Your task to perform on an android device: uninstall "Chime – Mobile Banking" Image 0: 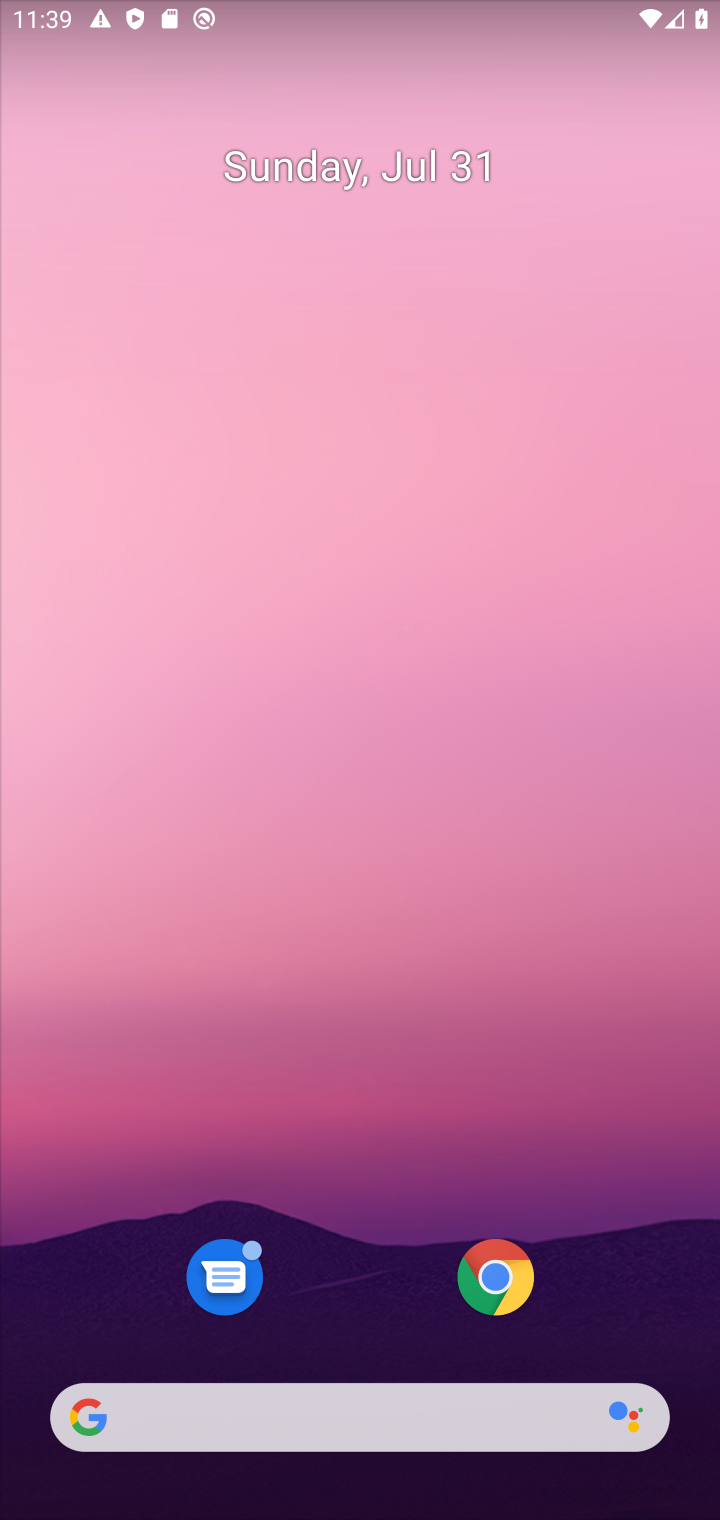
Step 0: drag from (363, 781) to (352, 307)
Your task to perform on an android device: uninstall "Chime – Mobile Banking" Image 1: 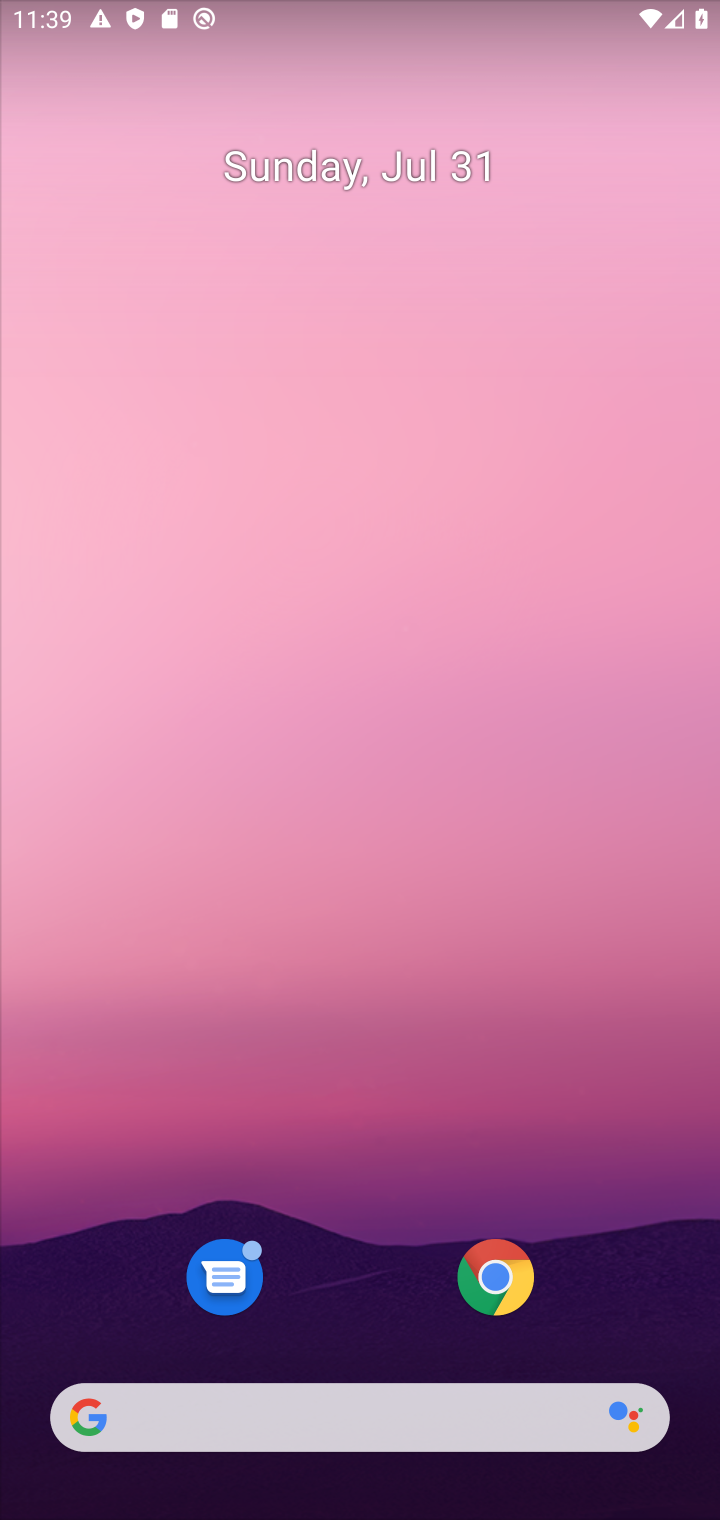
Step 1: drag from (393, 1175) to (530, 873)
Your task to perform on an android device: uninstall "Chime – Mobile Banking" Image 2: 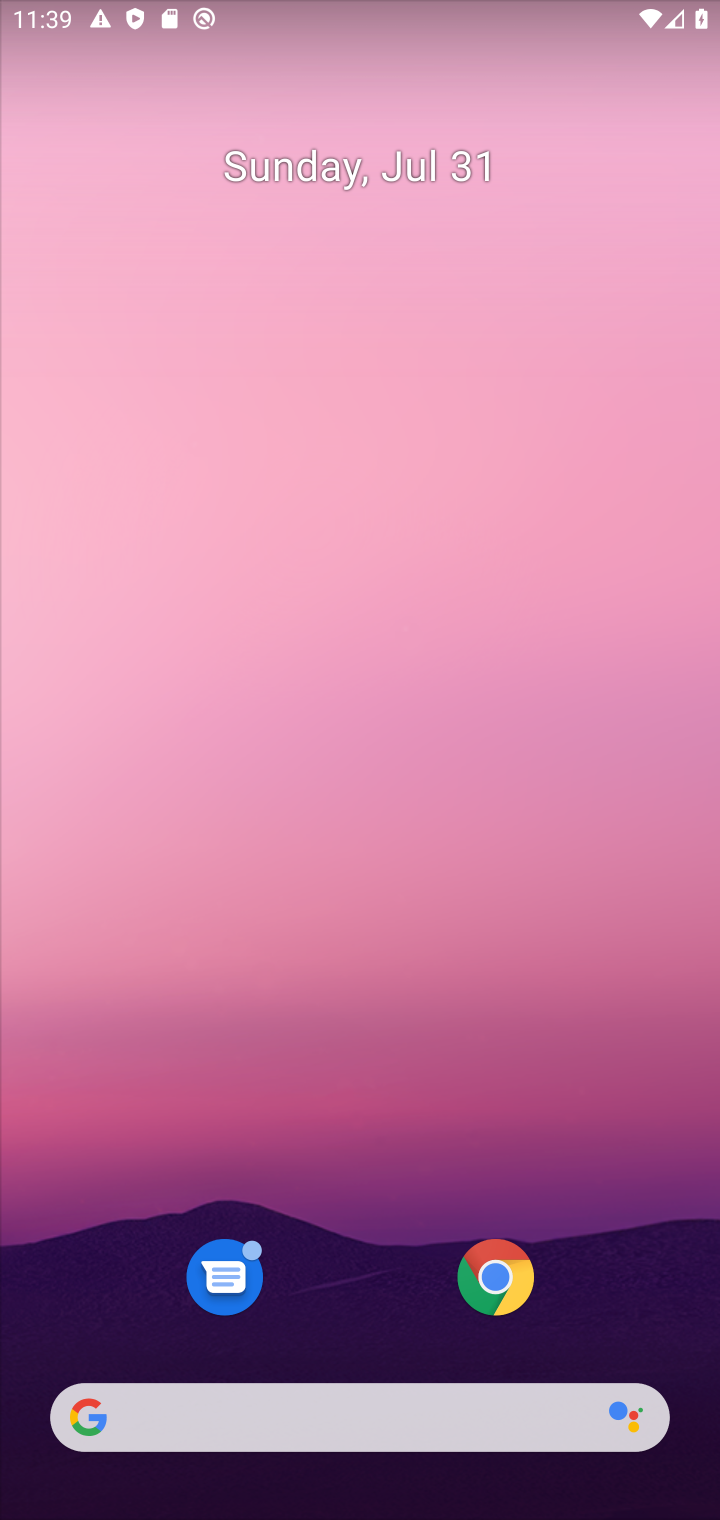
Step 2: drag from (345, 18) to (535, 76)
Your task to perform on an android device: uninstall "Chime – Mobile Banking" Image 3: 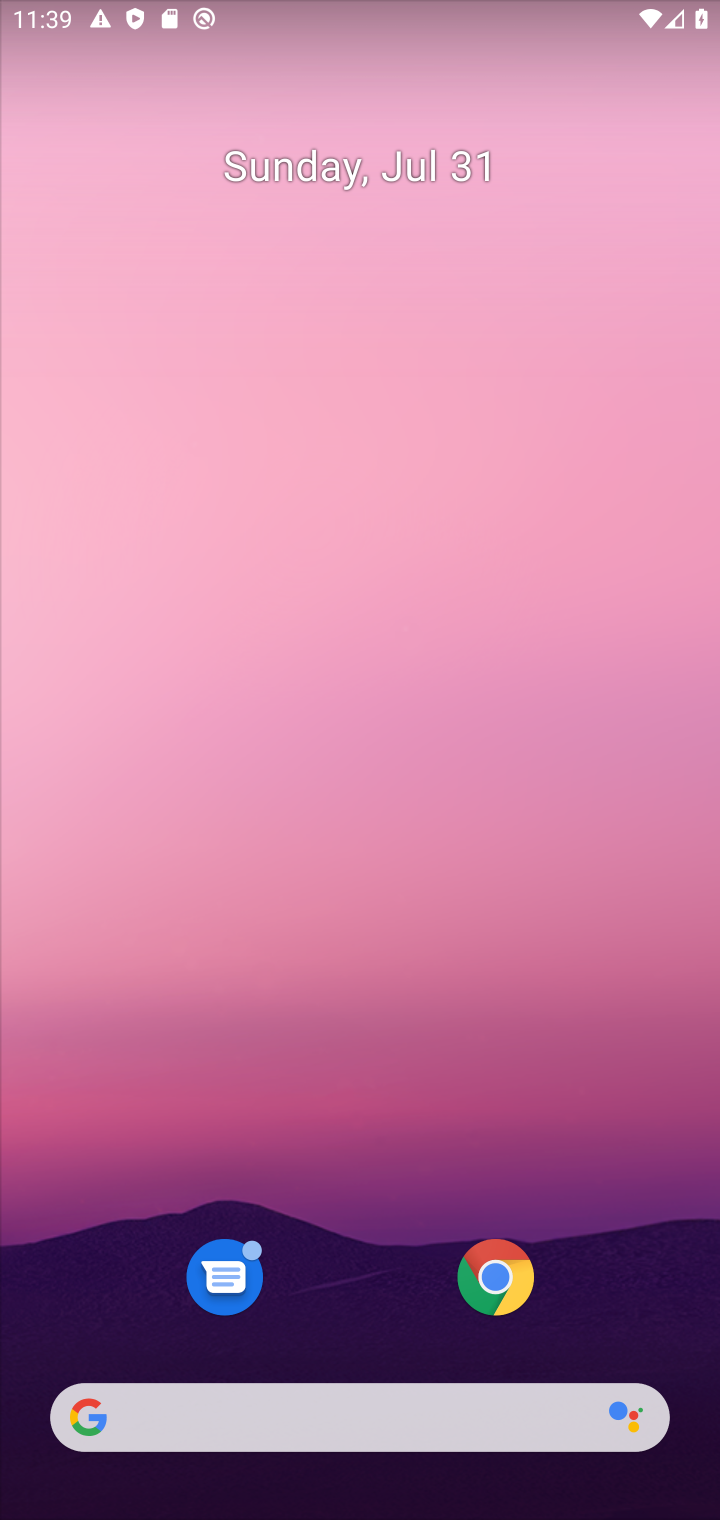
Step 3: drag from (327, 1235) to (421, 71)
Your task to perform on an android device: uninstall "Chime – Mobile Banking" Image 4: 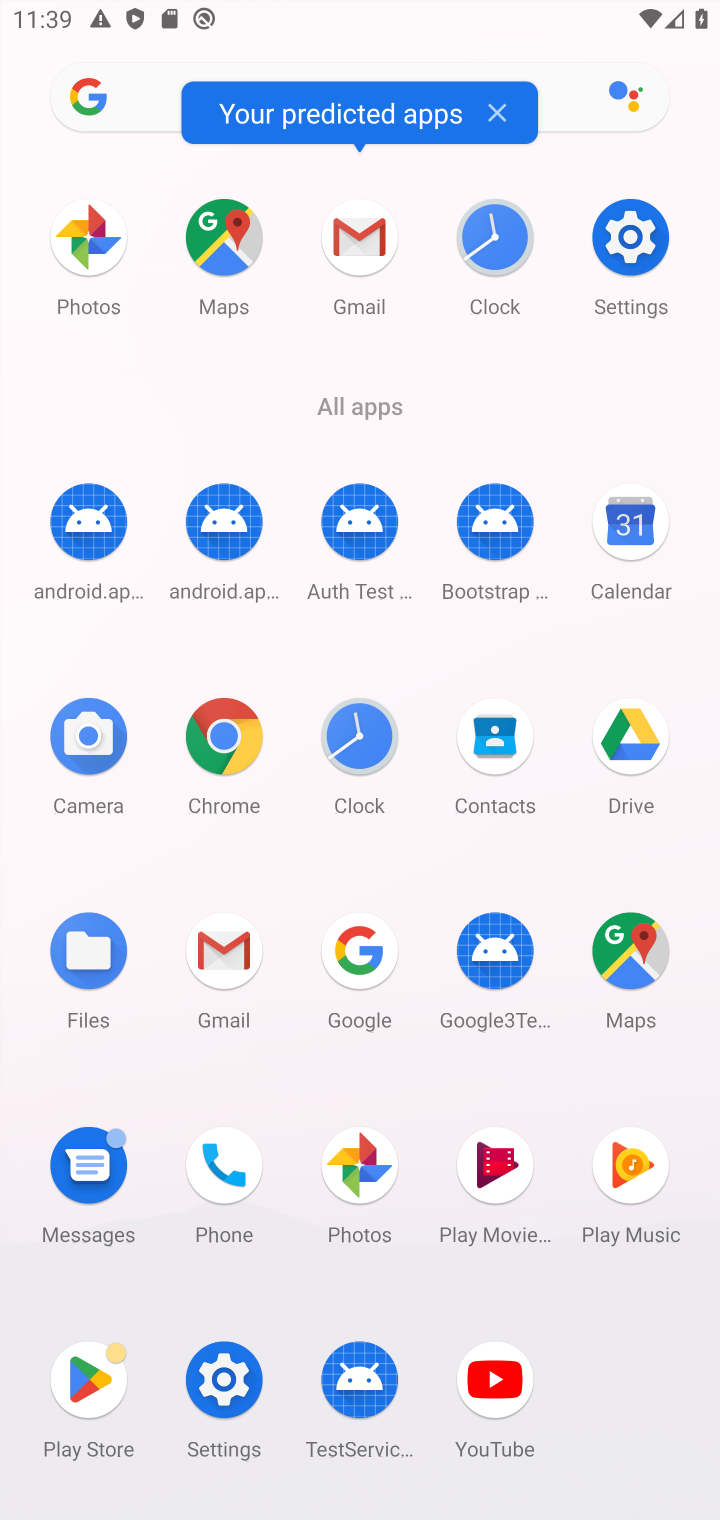
Step 4: click (77, 1387)
Your task to perform on an android device: uninstall "Chime – Mobile Banking" Image 5: 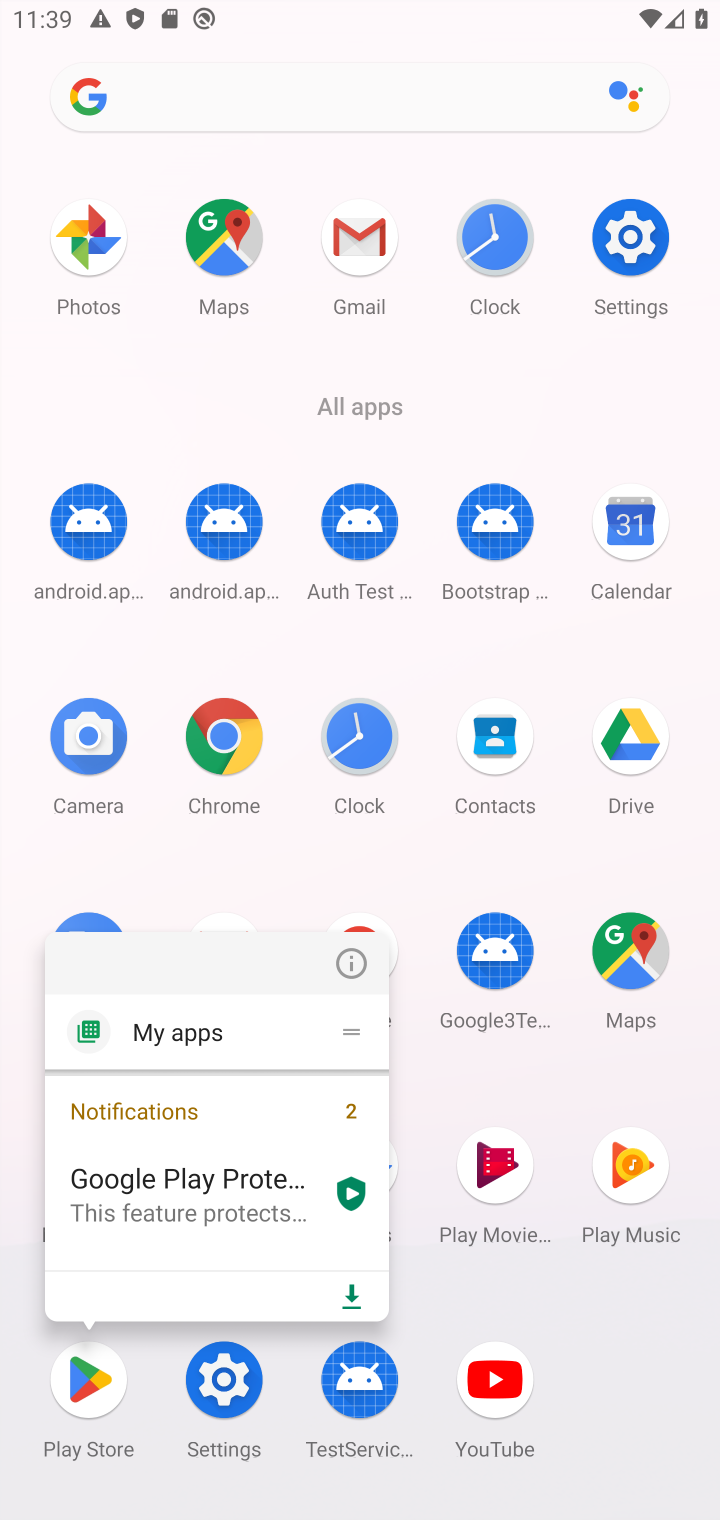
Step 5: click (77, 1387)
Your task to perform on an android device: uninstall "Chime – Mobile Banking" Image 6: 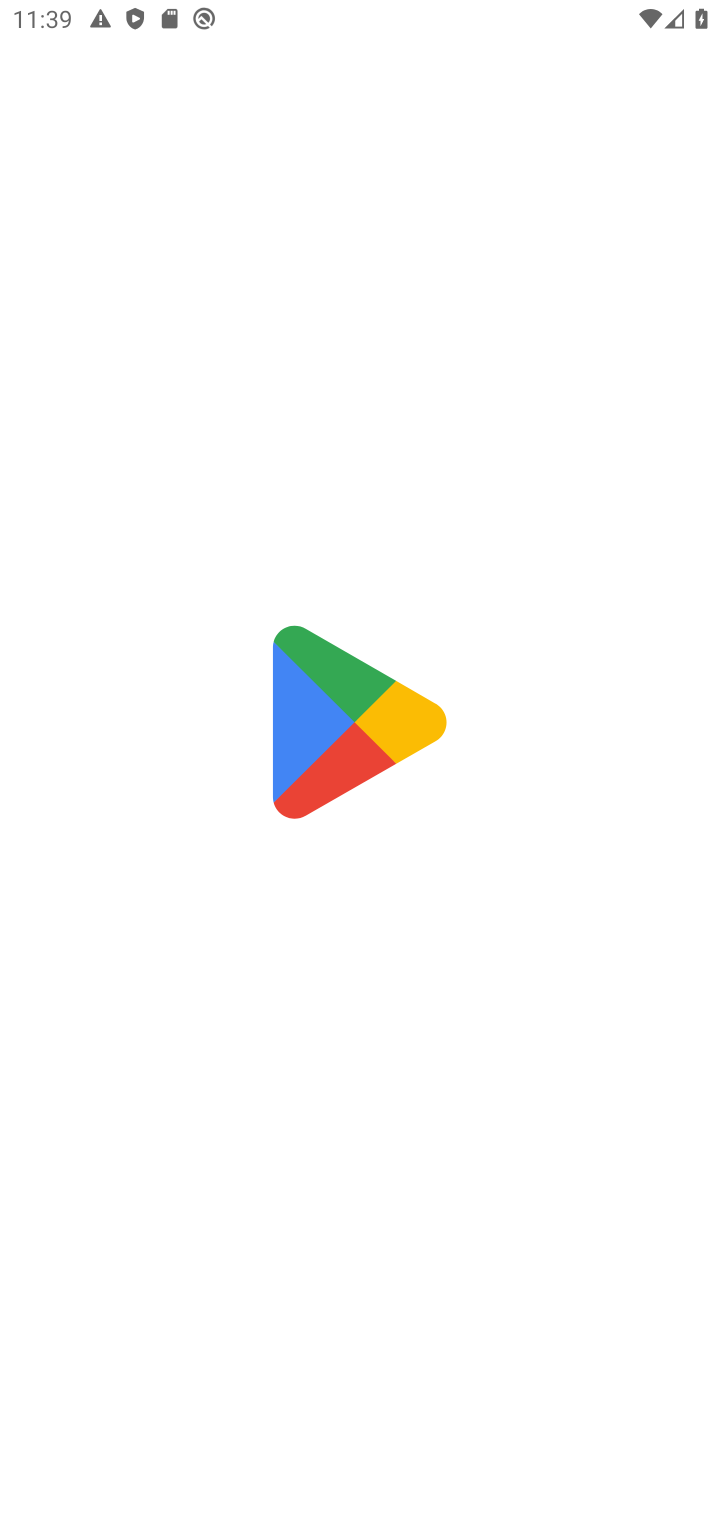
Step 6: click (101, 1382)
Your task to perform on an android device: uninstall "Chime – Mobile Banking" Image 7: 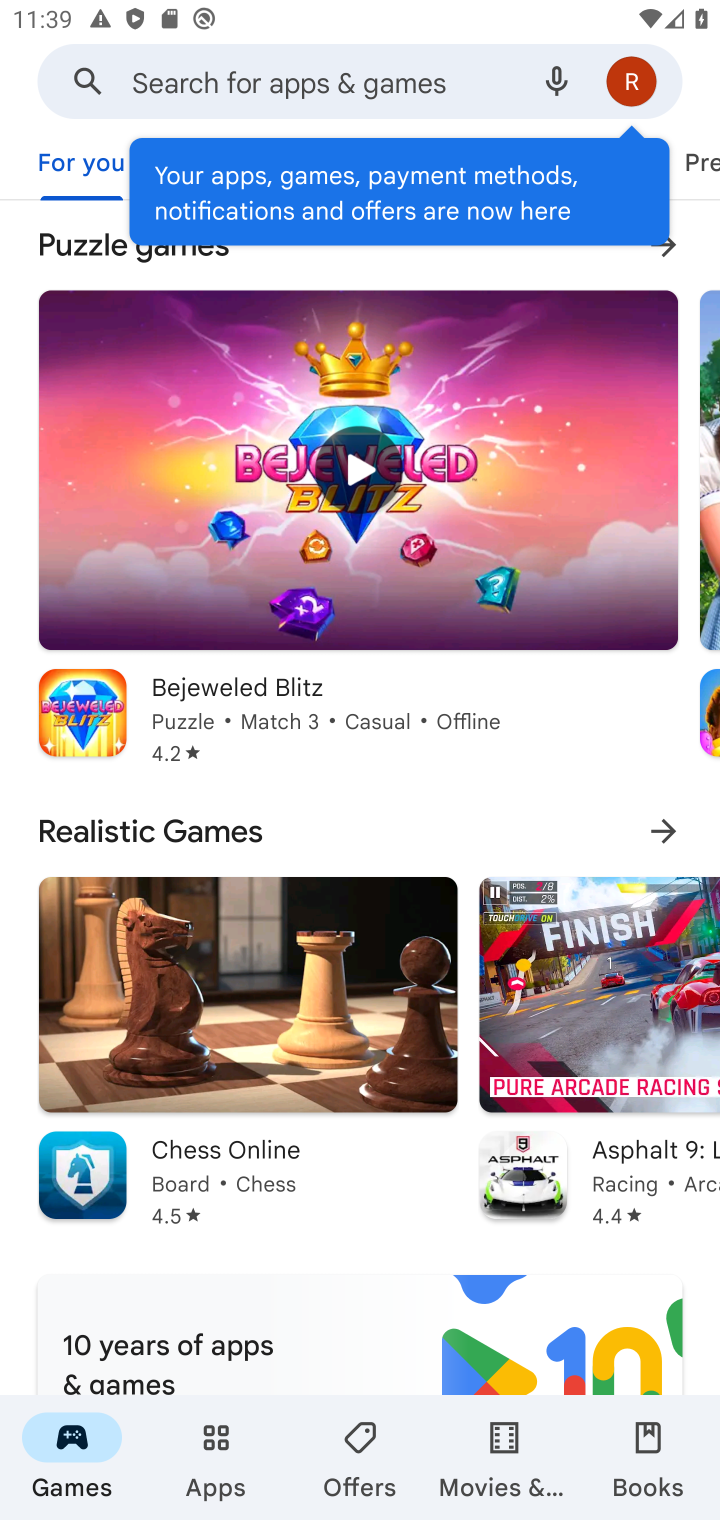
Step 7: click (301, 92)
Your task to perform on an android device: uninstall "Chime – Mobile Banking" Image 8: 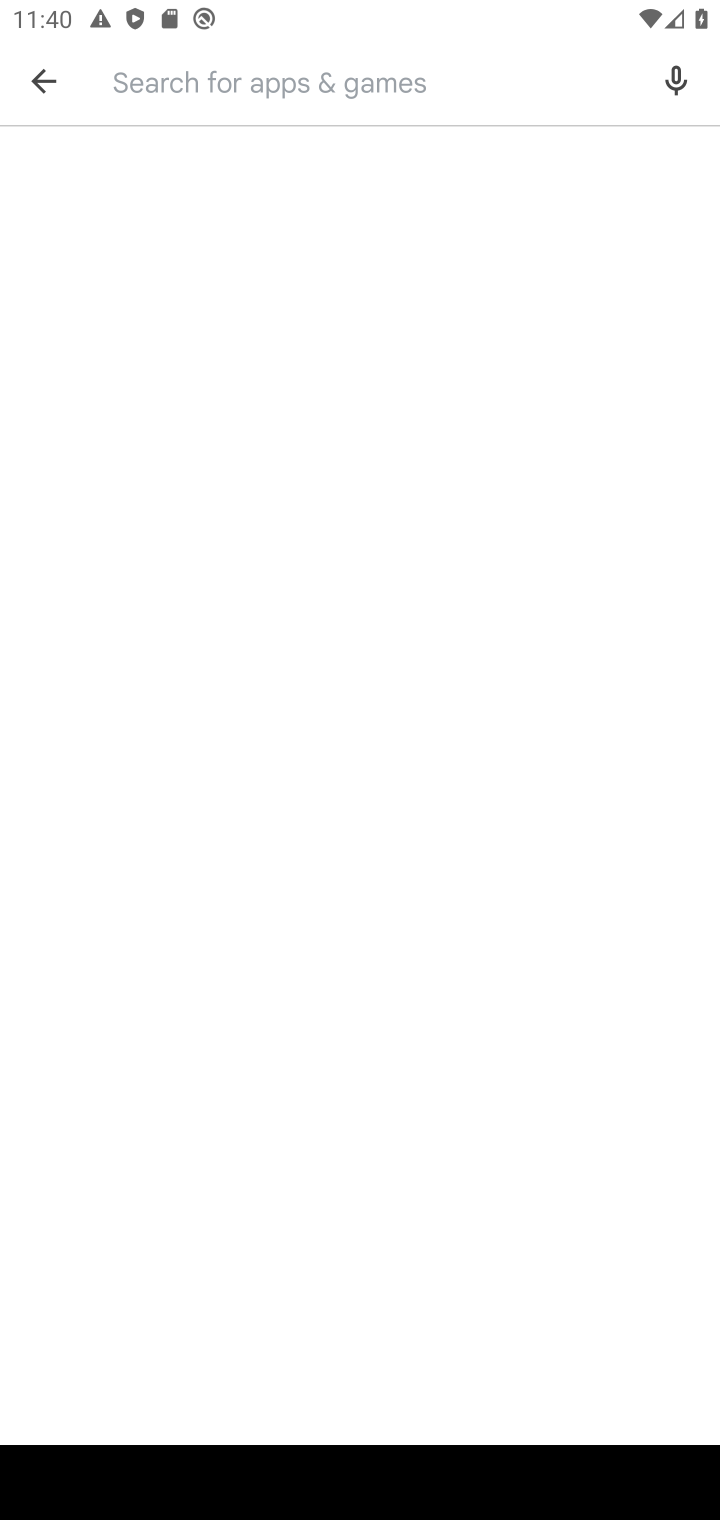
Step 8: type "chime - mobile banking"
Your task to perform on an android device: uninstall "Chime – Mobile Banking" Image 9: 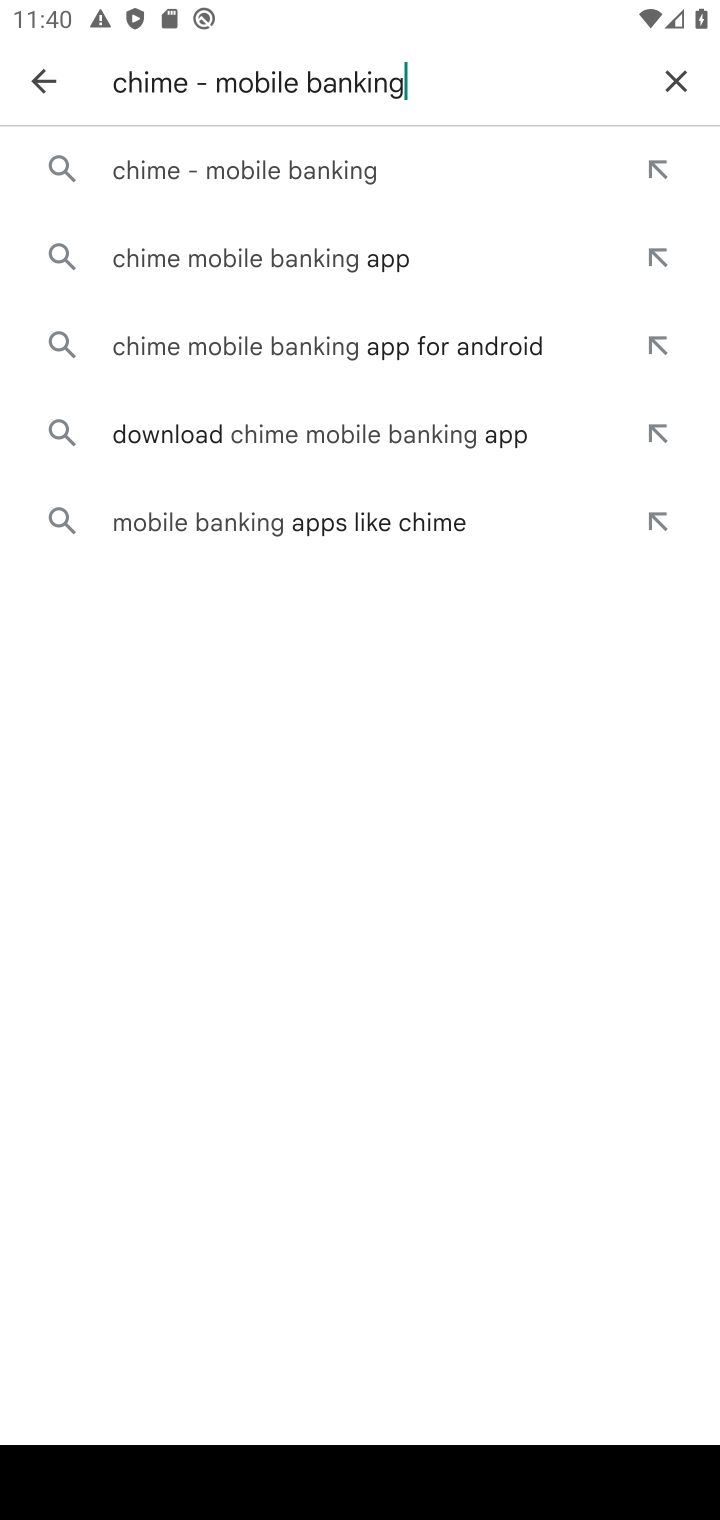
Step 9: click (392, 186)
Your task to perform on an android device: uninstall "Chime – Mobile Banking" Image 10: 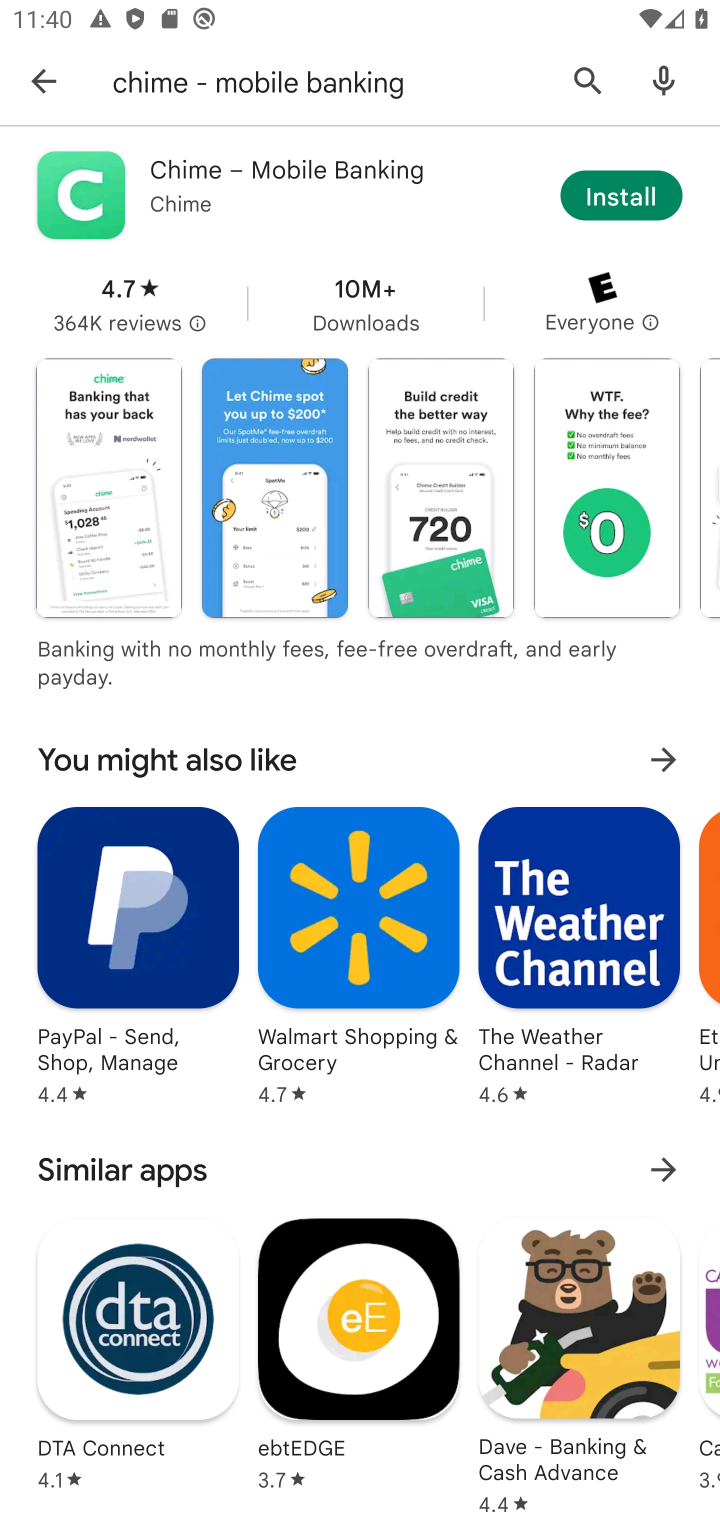
Step 10: task complete